Your task to perform on an android device: delete browsing data in the chrome app Image 0: 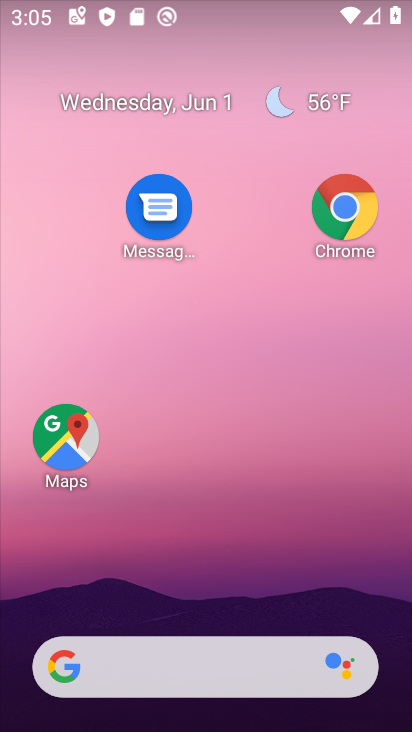
Step 0: drag from (204, 572) to (236, 61)
Your task to perform on an android device: delete browsing data in the chrome app Image 1: 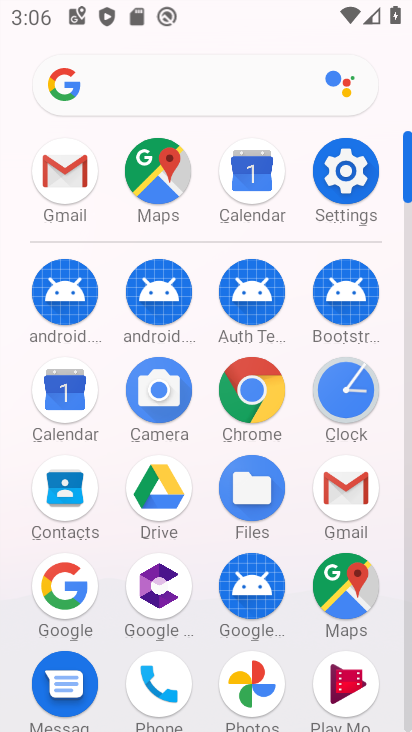
Step 1: click (253, 383)
Your task to perform on an android device: delete browsing data in the chrome app Image 2: 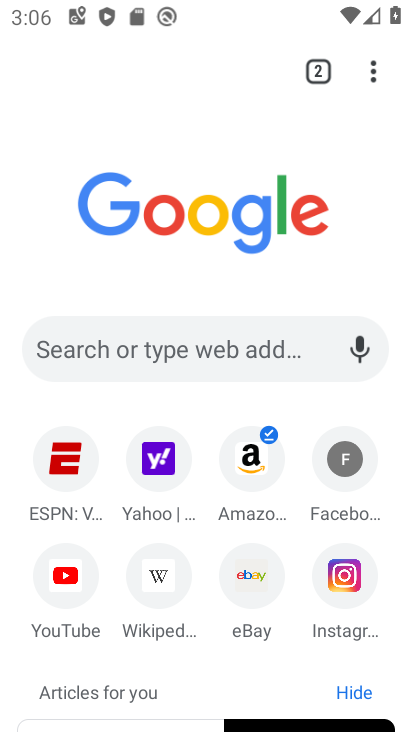
Step 2: drag from (370, 65) to (167, 408)
Your task to perform on an android device: delete browsing data in the chrome app Image 3: 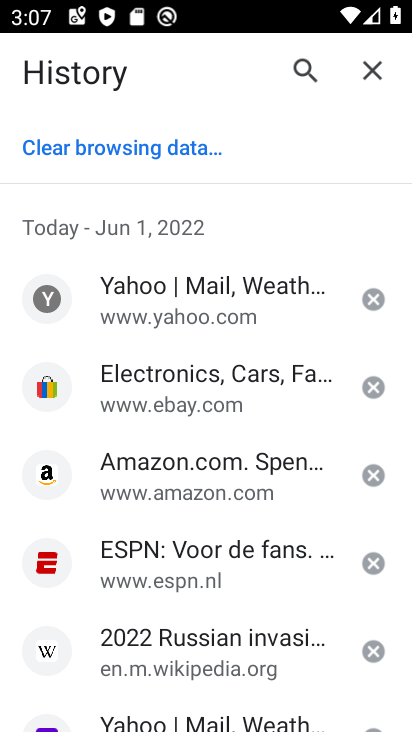
Step 3: click (86, 152)
Your task to perform on an android device: delete browsing data in the chrome app Image 4: 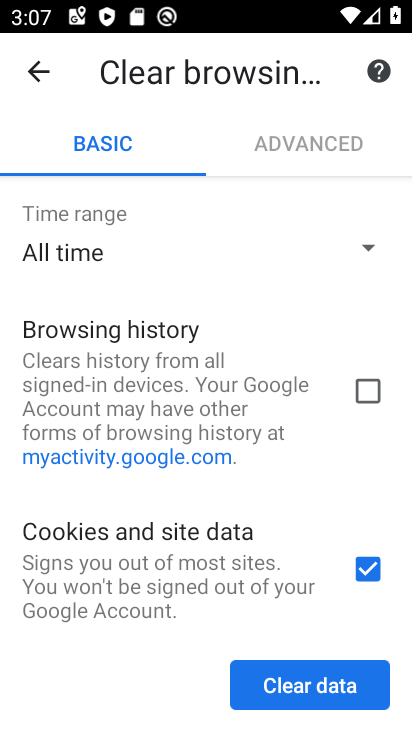
Step 4: click (366, 379)
Your task to perform on an android device: delete browsing data in the chrome app Image 5: 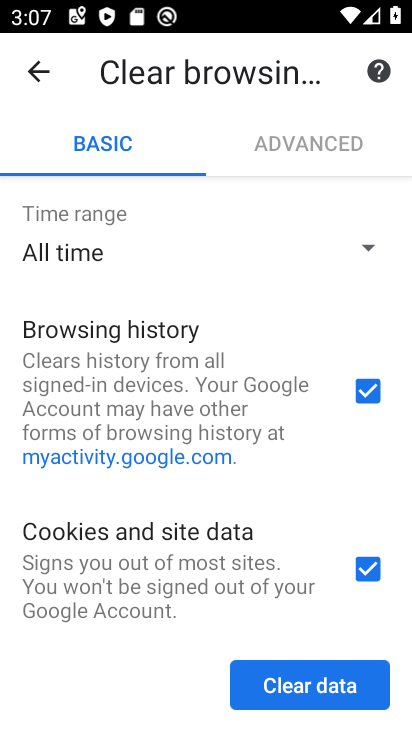
Step 5: click (286, 688)
Your task to perform on an android device: delete browsing data in the chrome app Image 6: 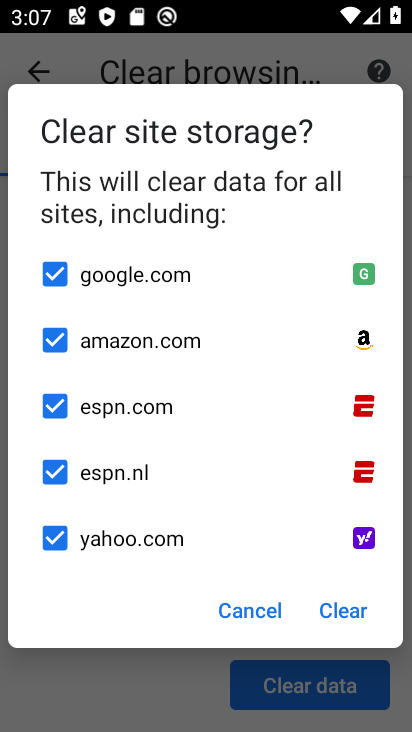
Step 6: click (355, 604)
Your task to perform on an android device: delete browsing data in the chrome app Image 7: 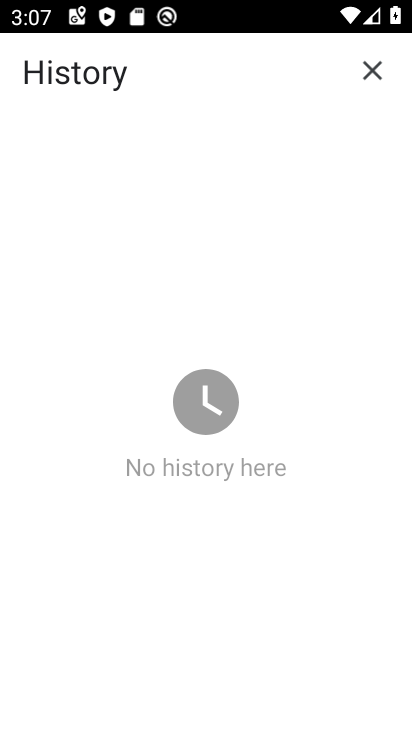
Step 7: click (363, 42)
Your task to perform on an android device: delete browsing data in the chrome app Image 8: 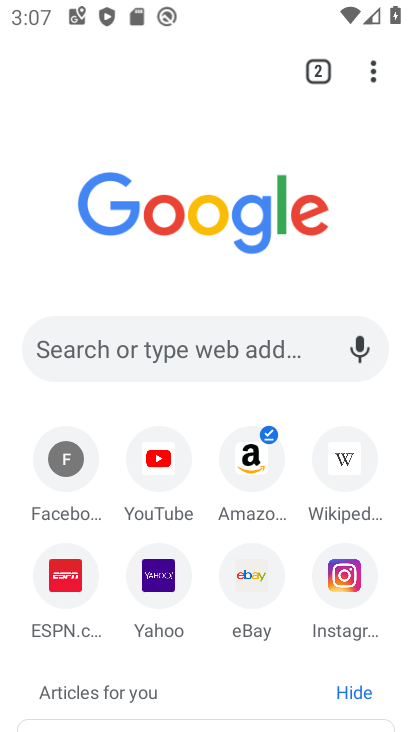
Step 8: drag from (380, 65) to (163, 398)
Your task to perform on an android device: delete browsing data in the chrome app Image 9: 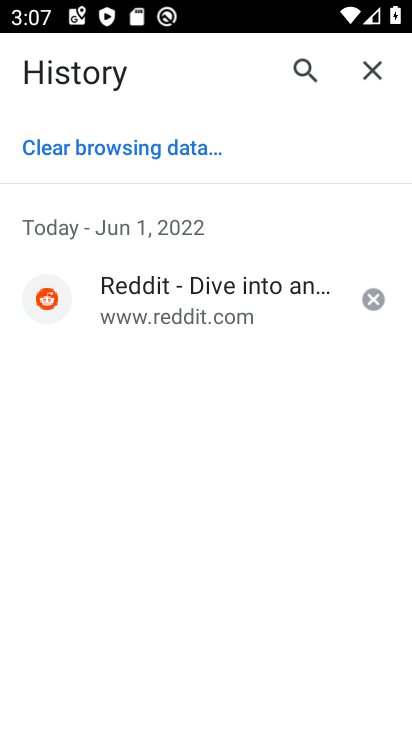
Step 9: click (76, 148)
Your task to perform on an android device: delete browsing data in the chrome app Image 10: 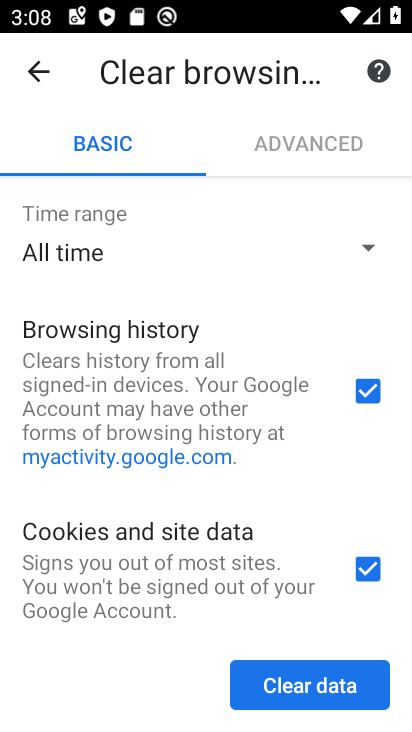
Step 10: click (305, 688)
Your task to perform on an android device: delete browsing data in the chrome app Image 11: 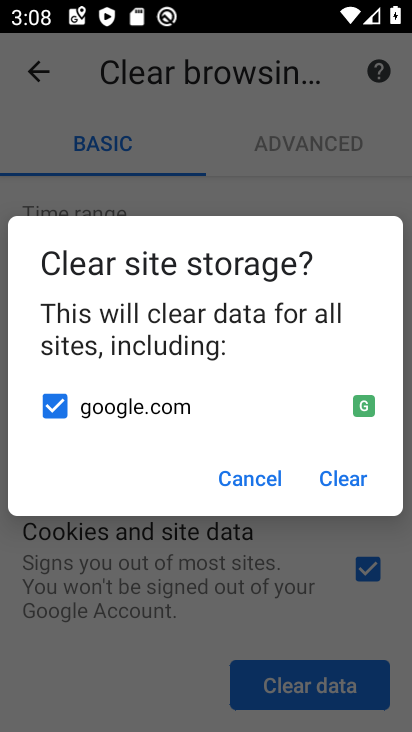
Step 11: click (338, 477)
Your task to perform on an android device: delete browsing data in the chrome app Image 12: 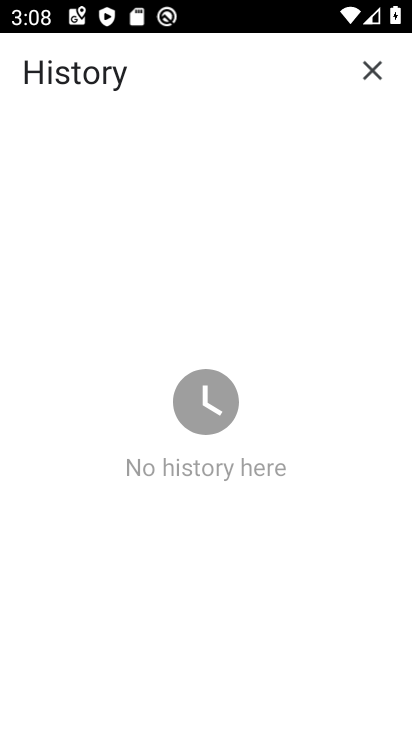
Step 12: task complete